Your task to perform on an android device: View the shopping cart on newegg.com. Search for "razer thresher" on newegg.com, select the first entry, and add it to the cart. Image 0: 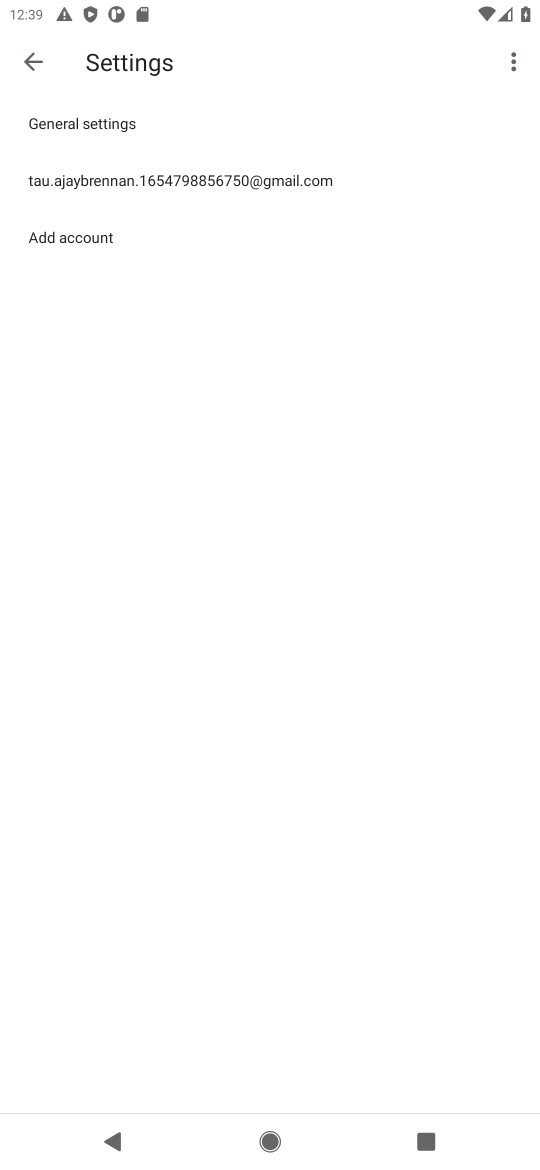
Step 0: press home button
Your task to perform on an android device: View the shopping cart on newegg.com. Search for "razer thresher" on newegg.com, select the first entry, and add it to the cart. Image 1: 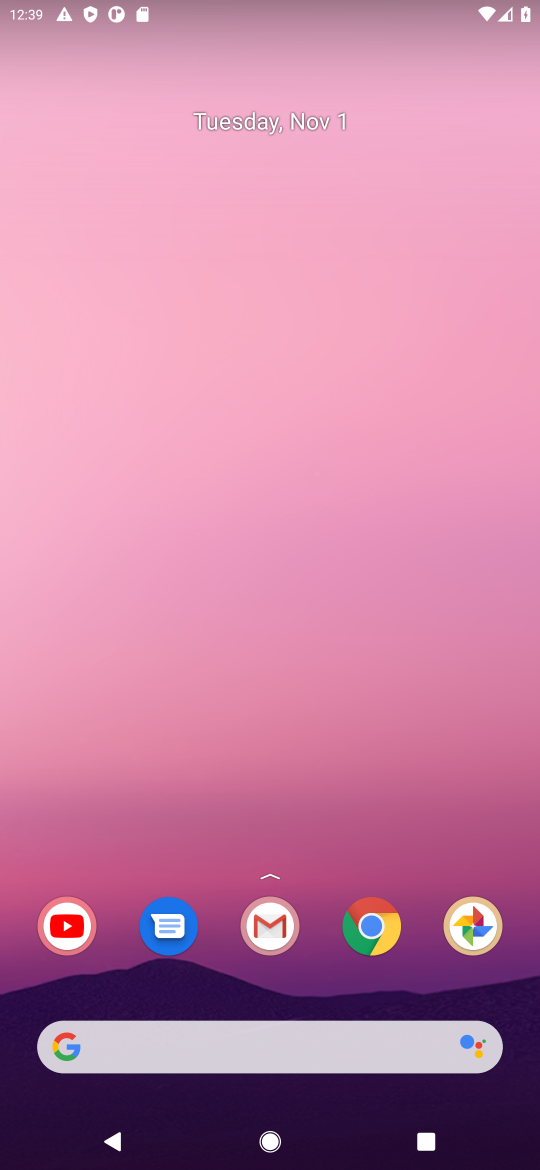
Step 1: click (378, 936)
Your task to perform on an android device: View the shopping cart on newegg.com. Search for "razer thresher" on newegg.com, select the first entry, and add it to the cart. Image 2: 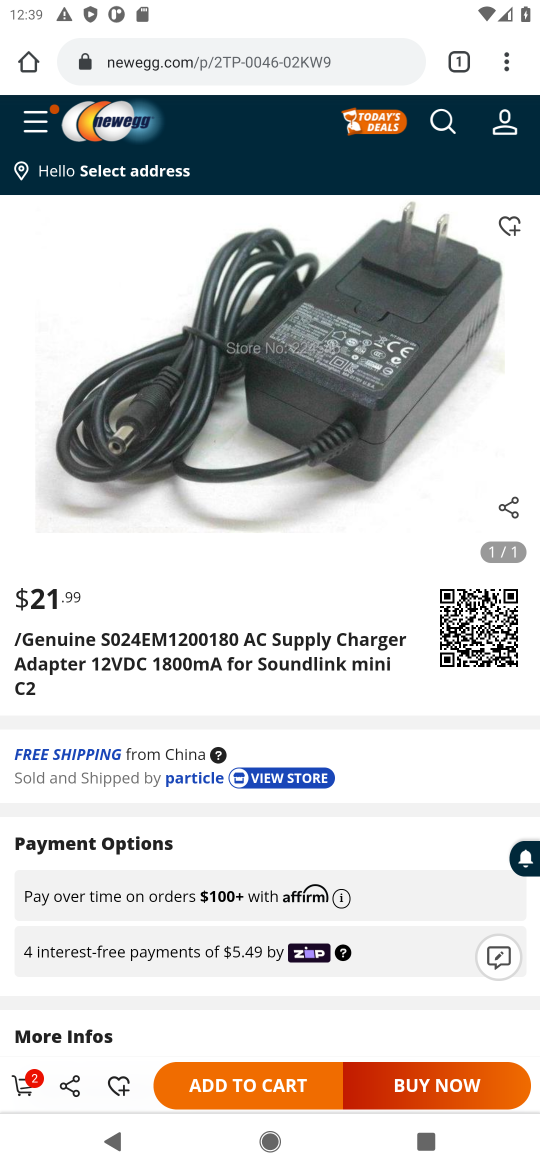
Step 2: click (212, 67)
Your task to perform on an android device: View the shopping cart on newegg.com. Search for "razer thresher" on newegg.com, select the first entry, and add it to the cart. Image 3: 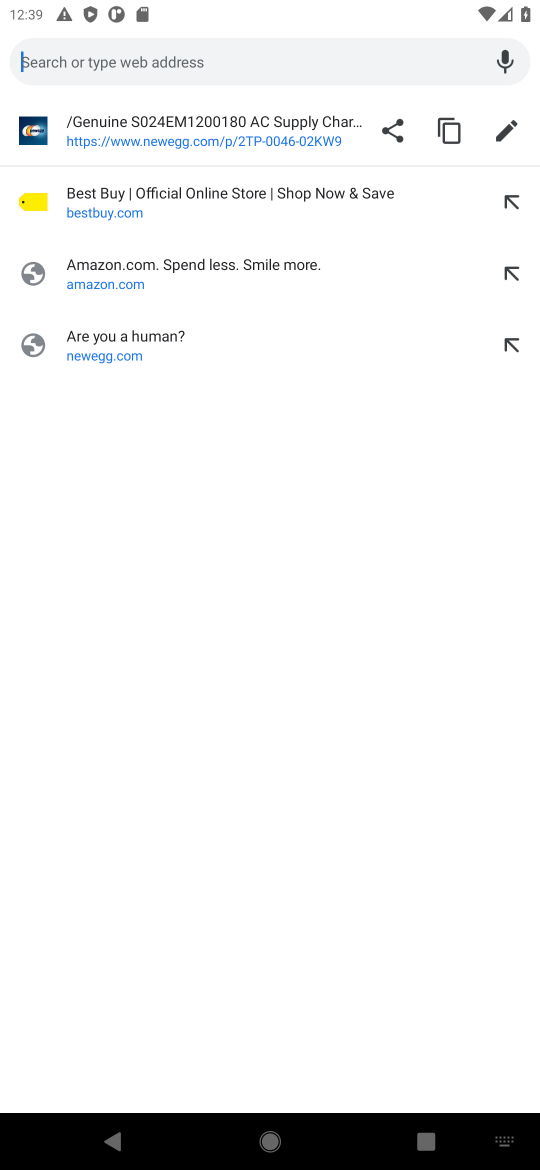
Step 3: press back button
Your task to perform on an android device: View the shopping cart on newegg.com. Search for "razer thresher" on newegg.com, select the first entry, and add it to the cart. Image 4: 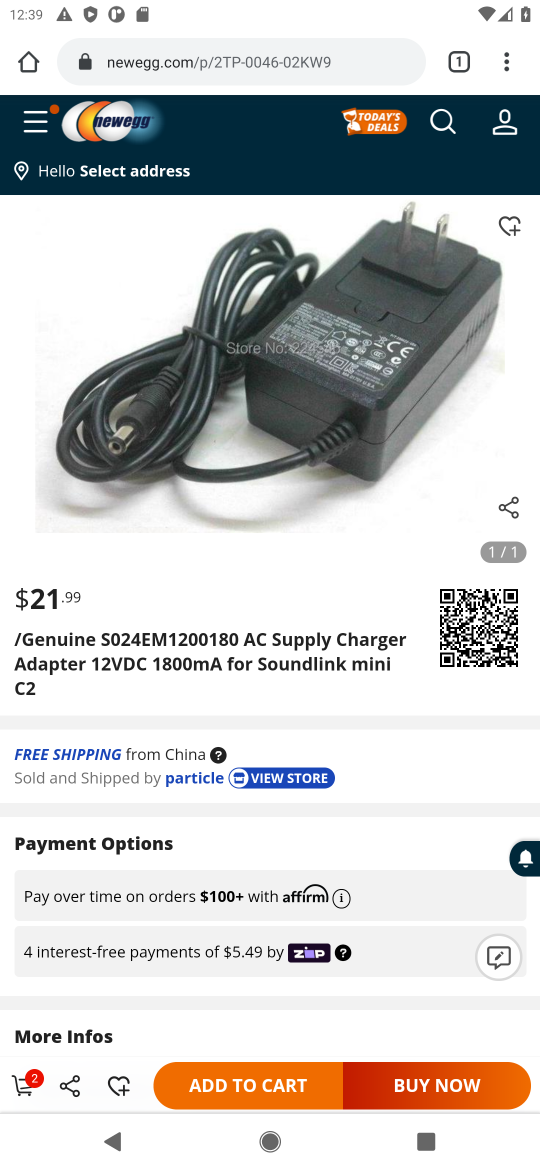
Step 4: click (35, 1082)
Your task to perform on an android device: View the shopping cart on newegg.com. Search for "razer thresher" on newegg.com, select the first entry, and add it to the cart. Image 5: 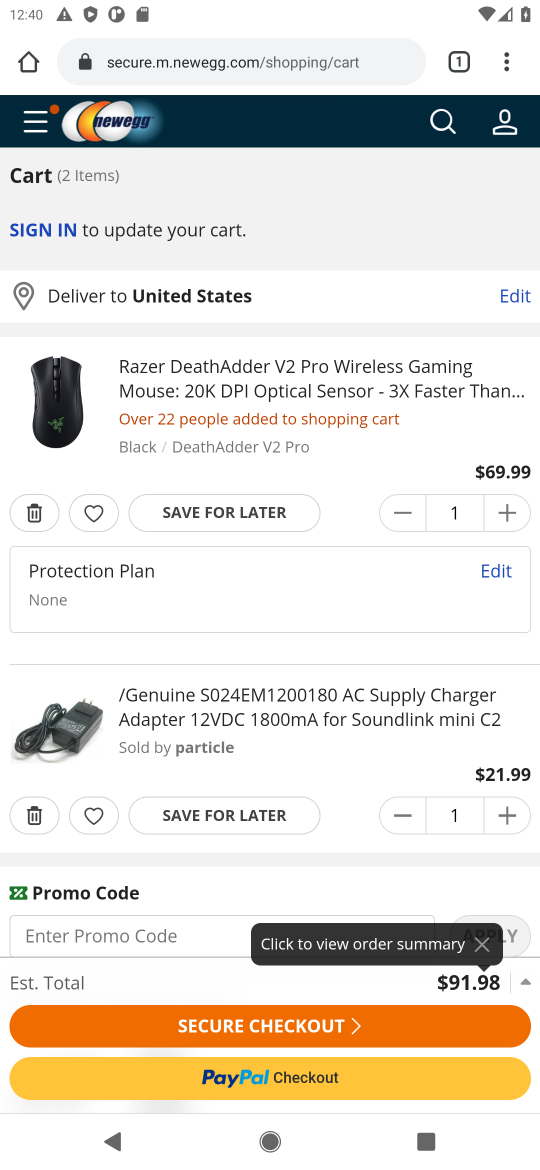
Step 5: click (441, 120)
Your task to perform on an android device: View the shopping cart on newegg.com. Search for "razer thresher" on newegg.com, select the first entry, and add it to the cart. Image 6: 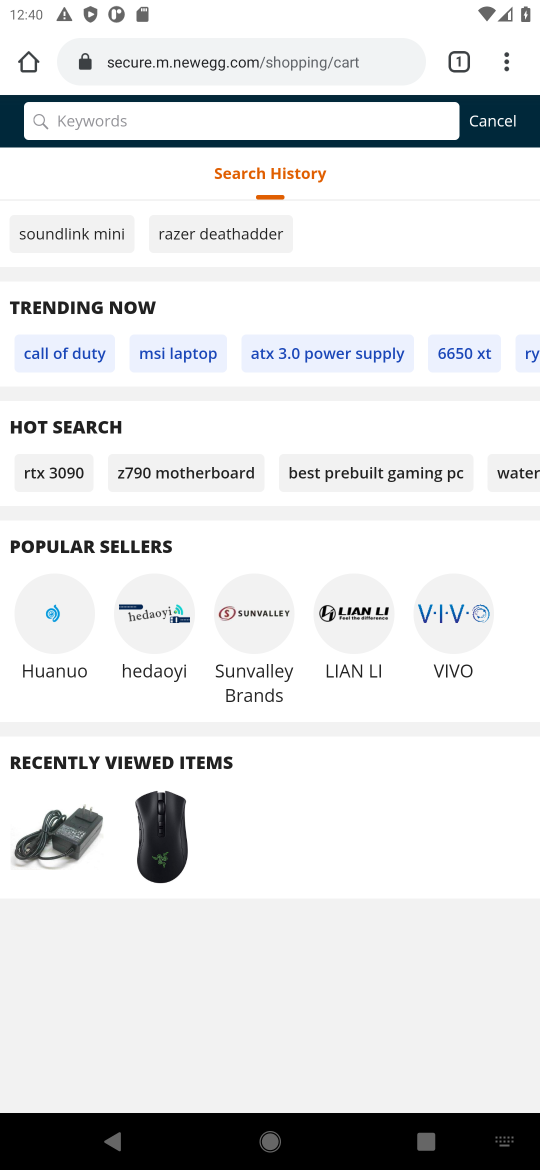
Step 6: type "razer thresher"
Your task to perform on an android device: View the shopping cart on newegg.com. Search for "razer thresher" on newegg.com, select the first entry, and add it to the cart. Image 7: 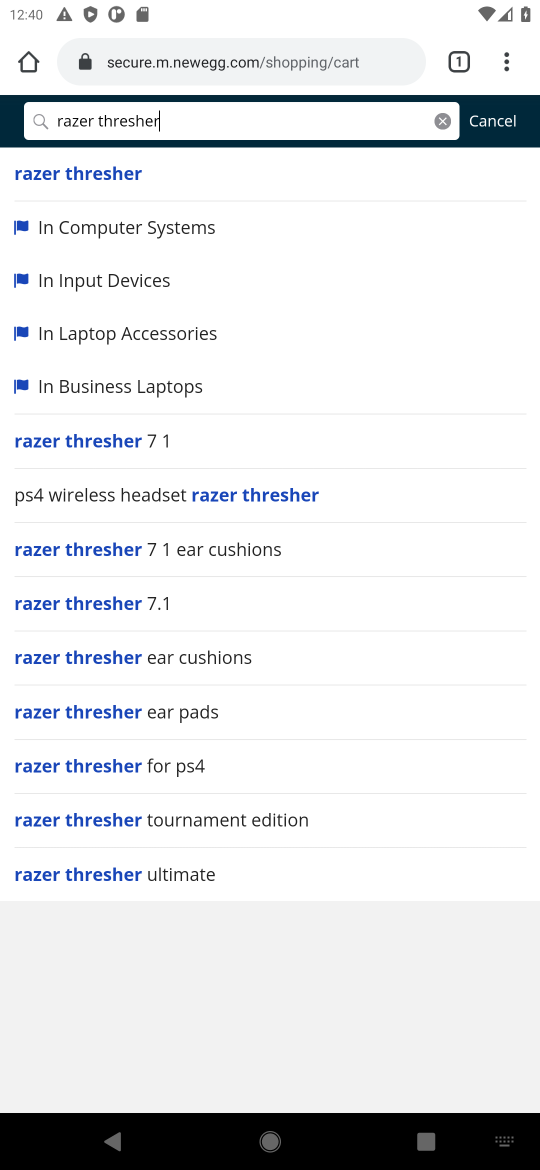
Step 7: press enter
Your task to perform on an android device: View the shopping cart on newegg.com. Search for "razer thresher" on newegg.com, select the first entry, and add it to the cart. Image 8: 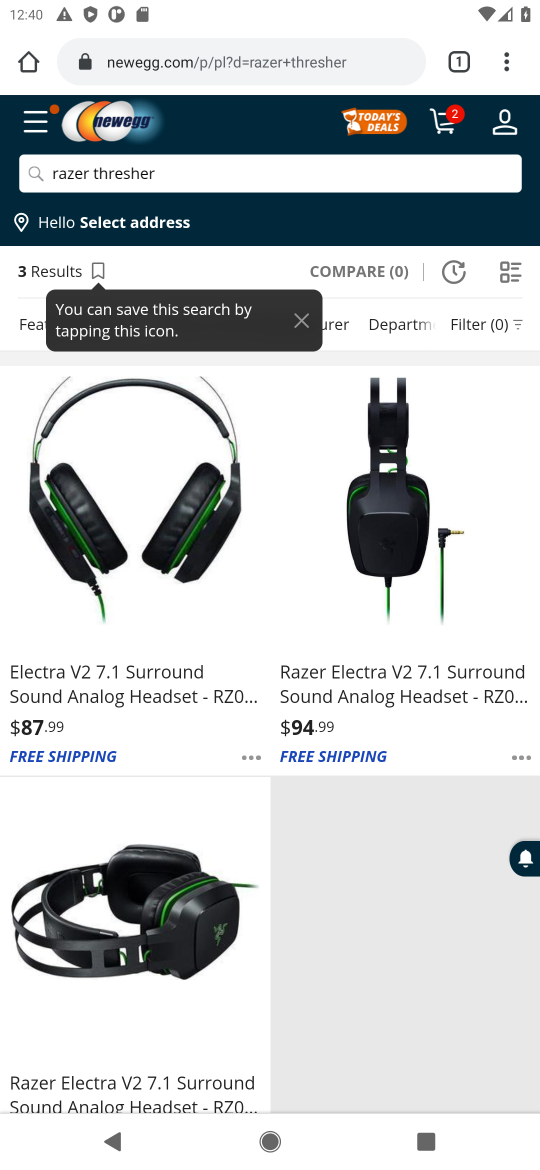
Step 8: click (84, 601)
Your task to perform on an android device: View the shopping cart on newegg.com. Search for "razer thresher" on newegg.com, select the first entry, and add it to the cart. Image 9: 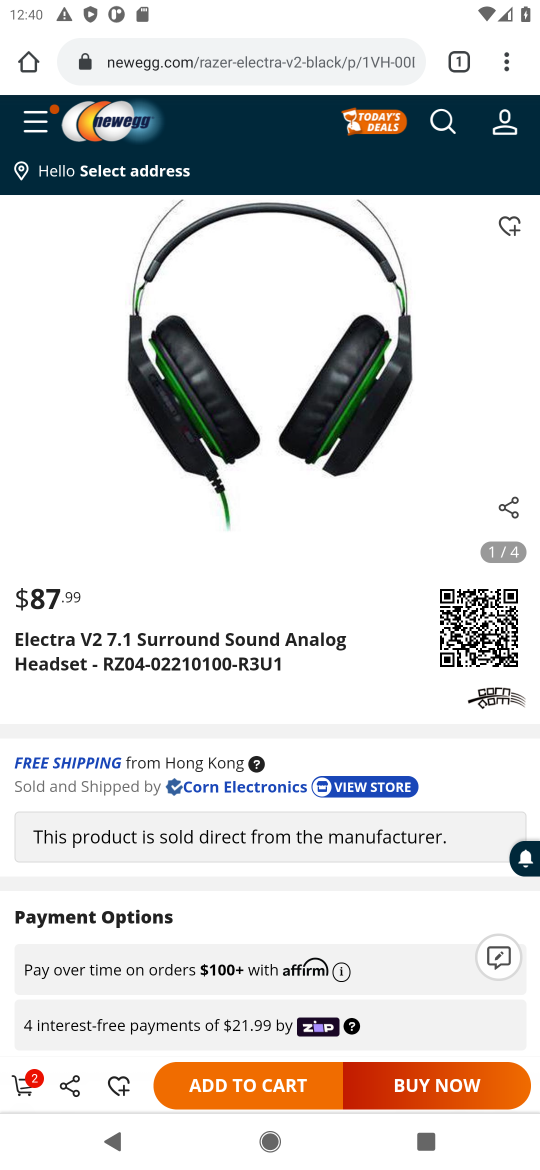
Step 9: click (270, 1084)
Your task to perform on an android device: View the shopping cart on newegg.com. Search for "razer thresher" on newegg.com, select the first entry, and add it to the cart. Image 10: 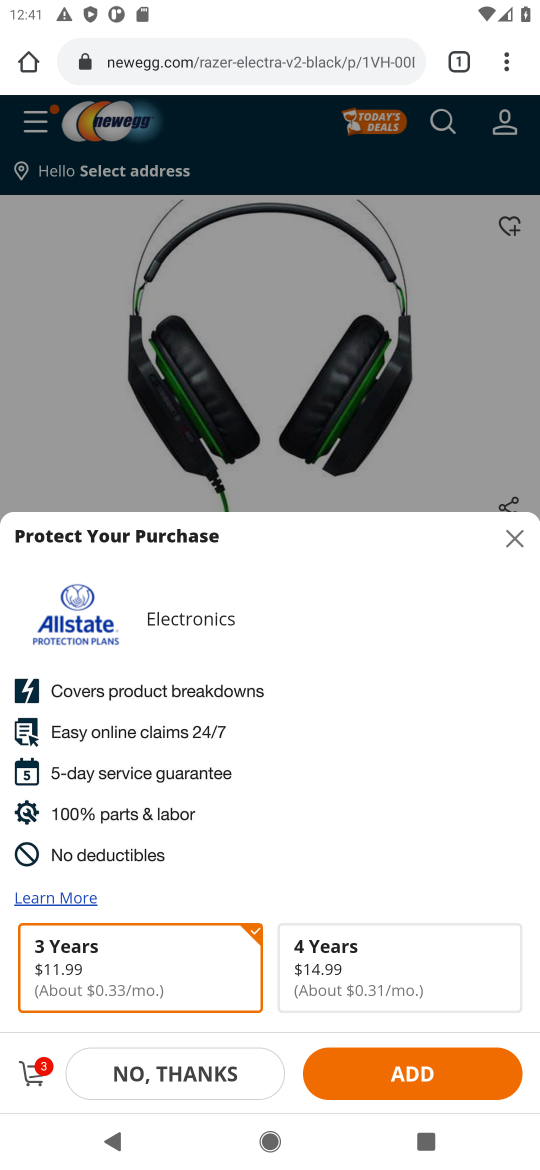
Step 10: task complete